Your task to perform on an android device: Search for Mexican restaurants on Maps Image 0: 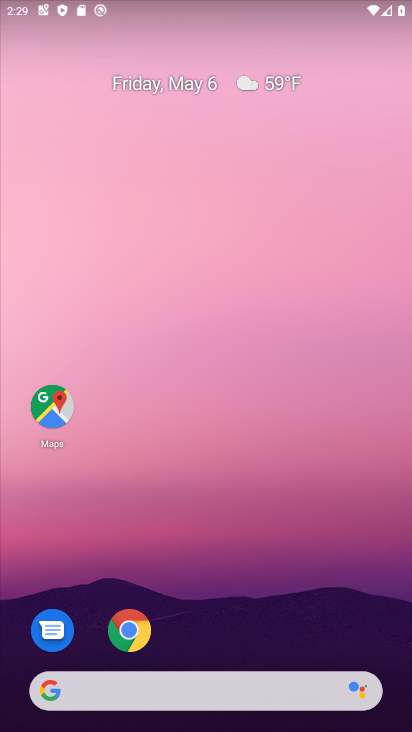
Step 0: click (51, 413)
Your task to perform on an android device: Search for Mexican restaurants on Maps Image 1: 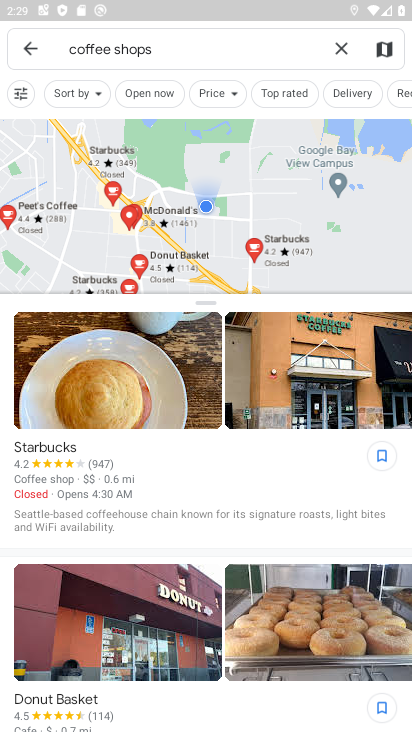
Step 1: click (343, 46)
Your task to perform on an android device: Search for Mexican restaurants on Maps Image 2: 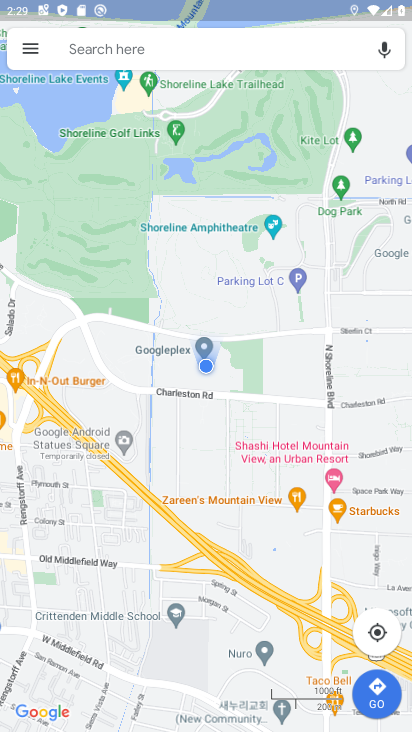
Step 2: click (114, 51)
Your task to perform on an android device: Search for Mexican restaurants on Maps Image 3: 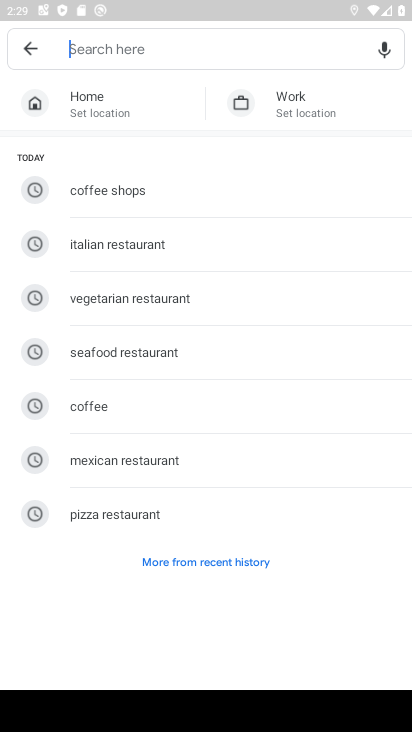
Step 3: type "Mexican restaurants"
Your task to perform on an android device: Search for Mexican restaurants on Maps Image 4: 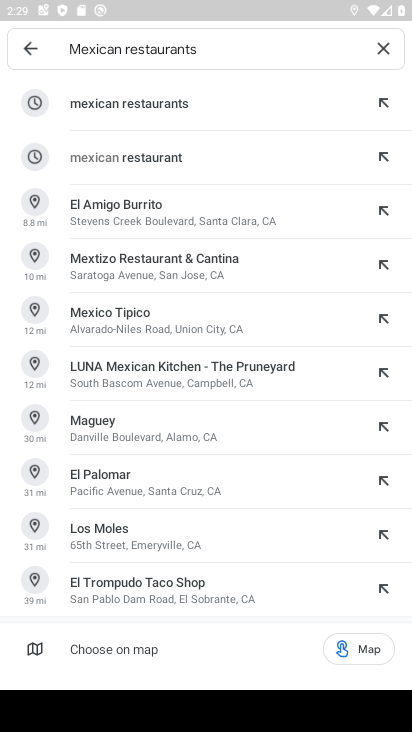
Step 4: click (219, 93)
Your task to perform on an android device: Search for Mexican restaurants on Maps Image 5: 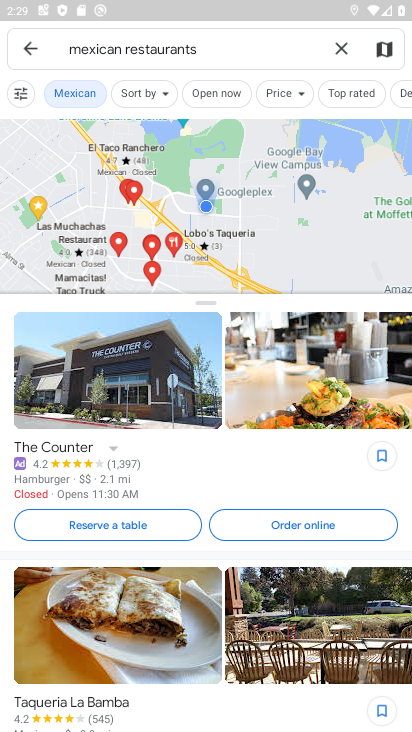
Step 5: task complete